Your task to perform on an android device: turn off notifications in google photos Image 0: 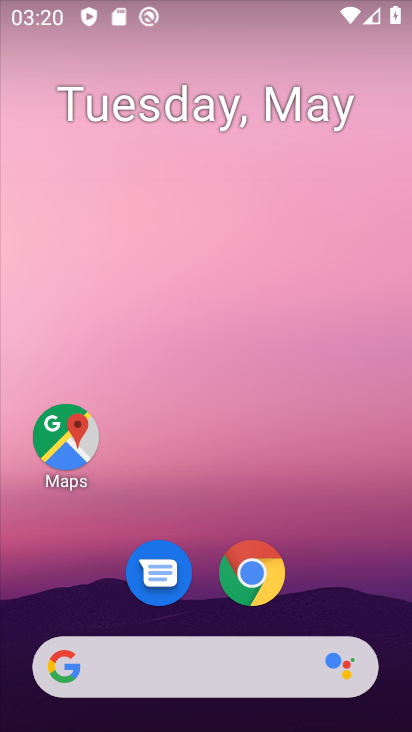
Step 0: drag from (209, 528) to (275, 10)
Your task to perform on an android device: turn off notifications in google photos Image 1: 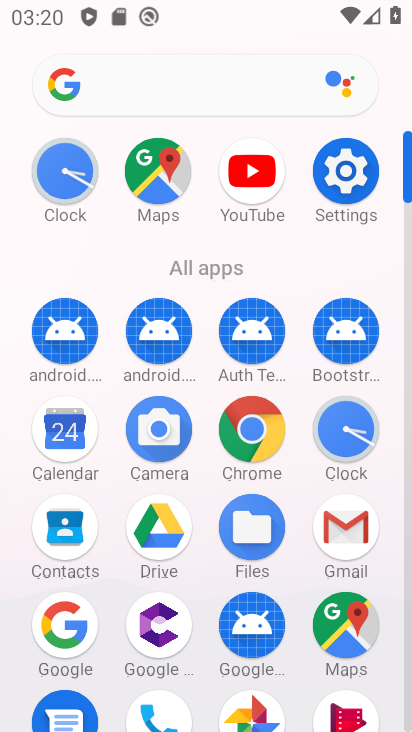
Step 1: click (252, 709)
Your task to perform on an android device: turn off notifications in google photos Image 2: 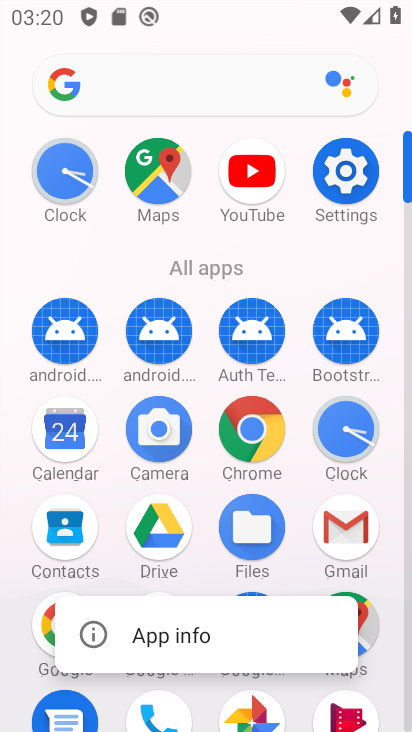
Step 2: click (104, 643)
Your task to perform on an android device: turn off notifications in google photos Image 3: 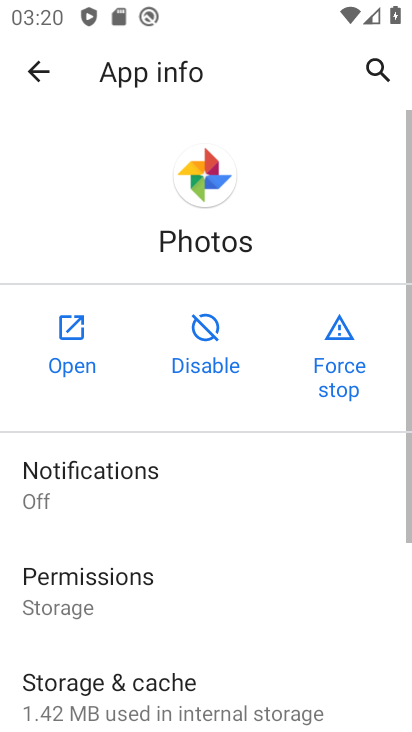
Step 3: click (90, 475)
Your task to perform on an android device: turn off notifications in google photos Image 4: 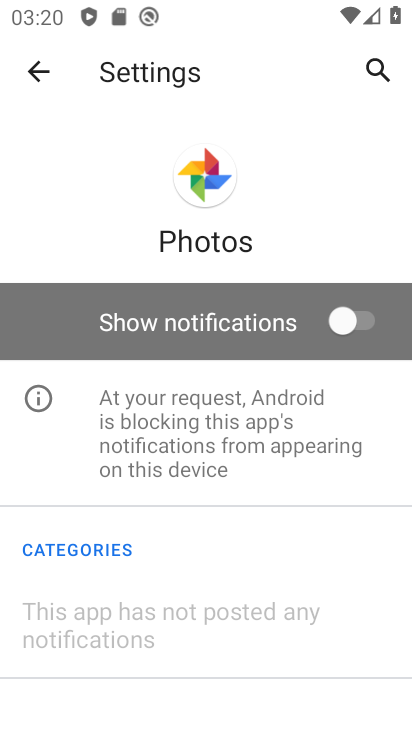
Step 4: task complete